Your task to perform on an android device: Go to battery settings Image 0: 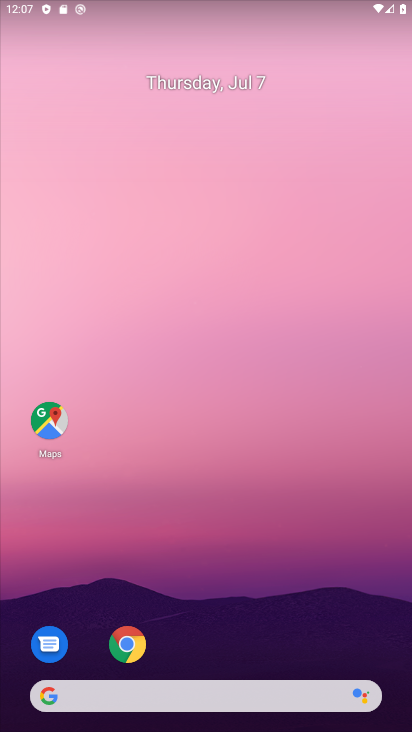
Step 0: drag from (170, 679) to (100, 152)
Your task to perform on an android device: Go to battery settings Image 1: 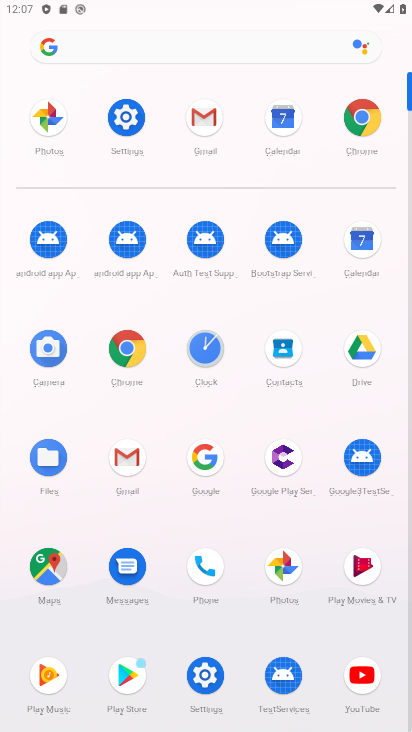
Step 1: click (120, 109)
Your task to perform on an android device: Go to battery settings Image 2: 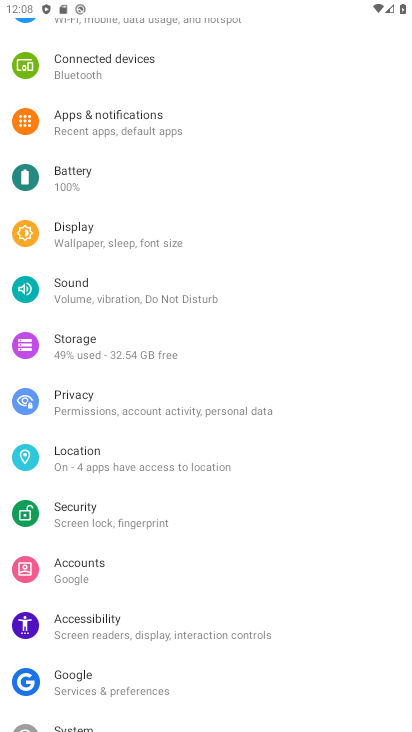
Step 2: drag from (144, 225) to (117, 542)
Your task to perform on an android device: Go to battery settings Image 3: 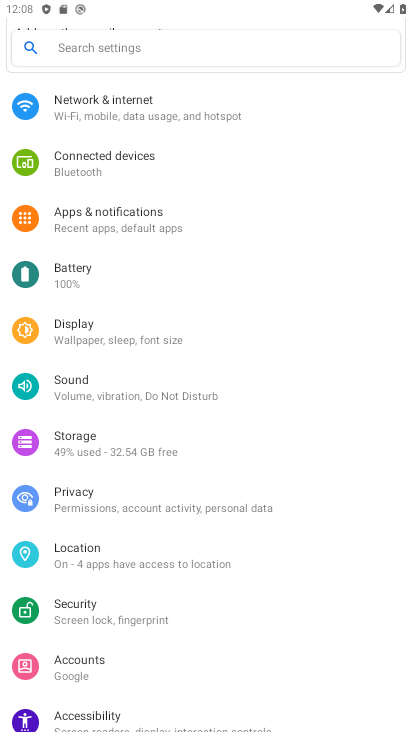
Step 3: click (53, 256)
Your task to perform on an android device: Go to battery settings Image 4: 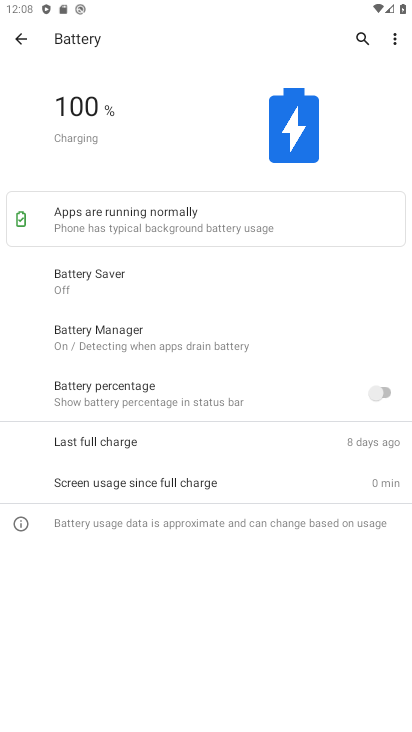
Step 4: task complete